Your task to perform on an android device: check google app version Image 0: 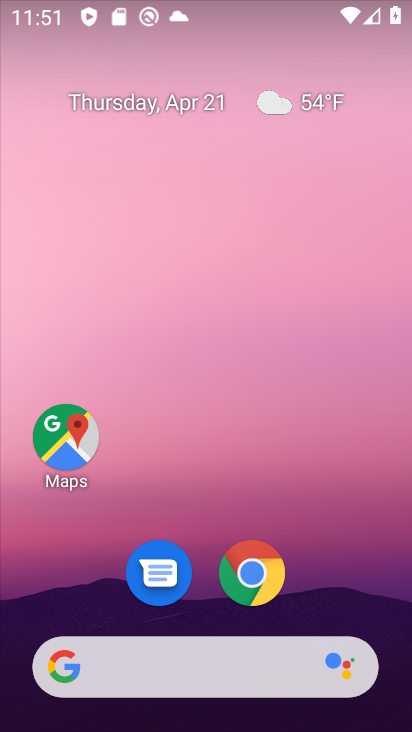
Step 0: drag from (218, 609) to (304, 189)
Your task to perform on an android device: check google app version Image 1: 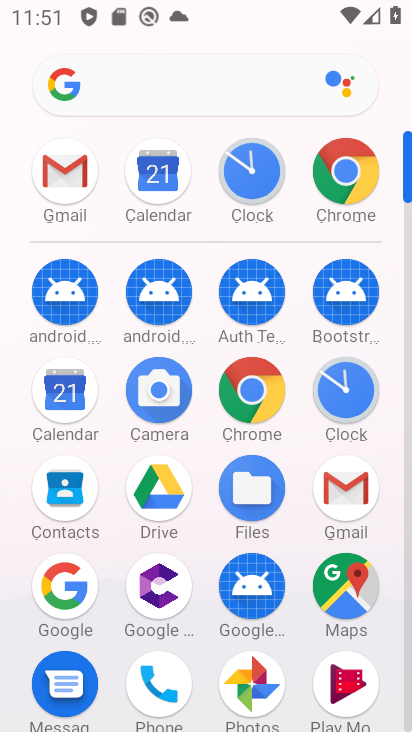
Step 1: click (70, 589)
Your task to perform on an android device: check google app version Image 2: 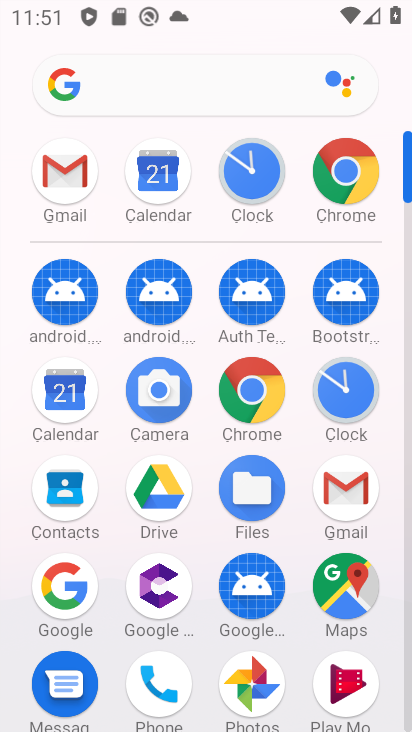
Step 2: click (227, 357)
Your task to perform on an android device: check google app version Image 3: 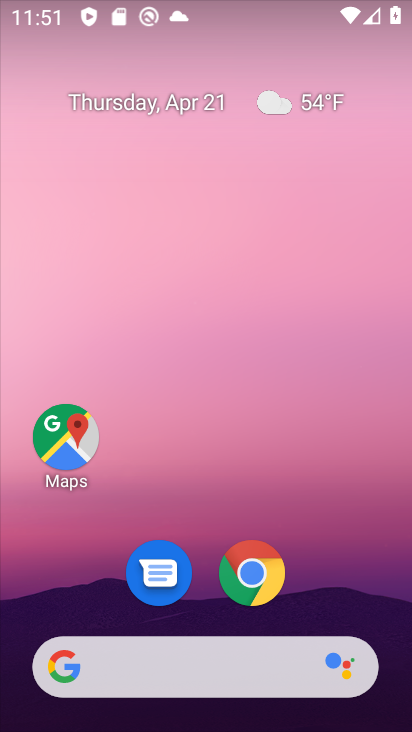
Step 3: drag from (172, 645) to (311, 76)
Your task to perform on an android device: check google app version Image 4: 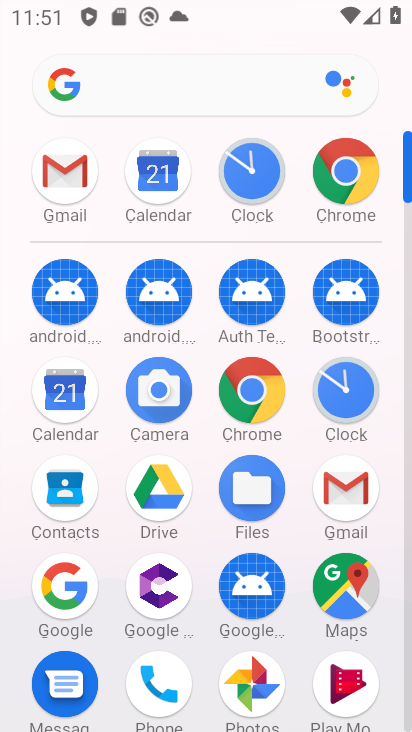
Step 4: drag from (76, 588) to (103, 510)
Your task to perform on an android device: check google app version Image 5: 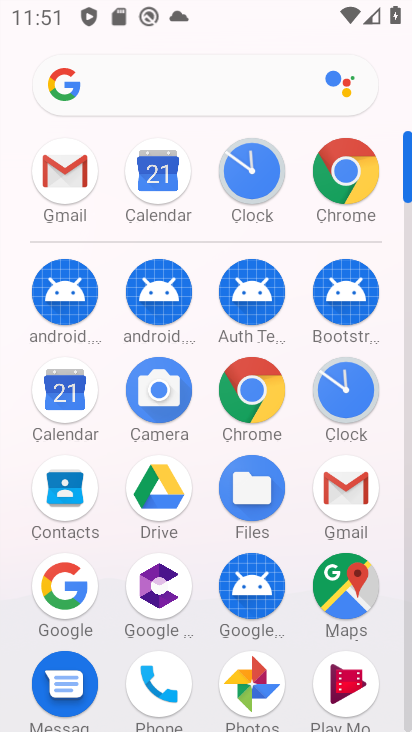
Step 5: click (237, 355)
Your task to perform on an android device: check google app version Image 6: 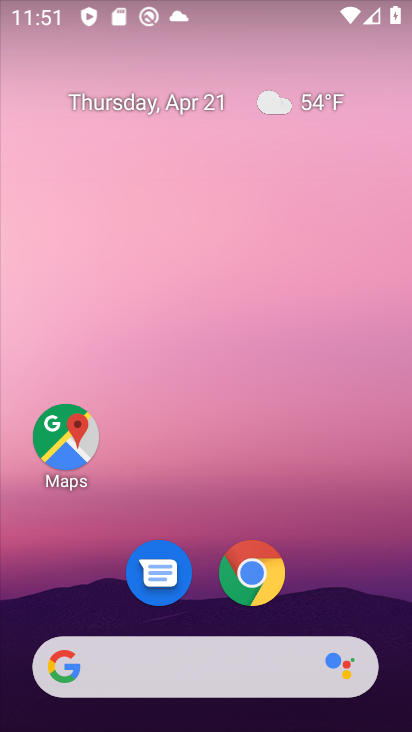
Step 6: drag from (113, 671) to (271, 156)
Your task to perform on an android device: check google app version Image 7: 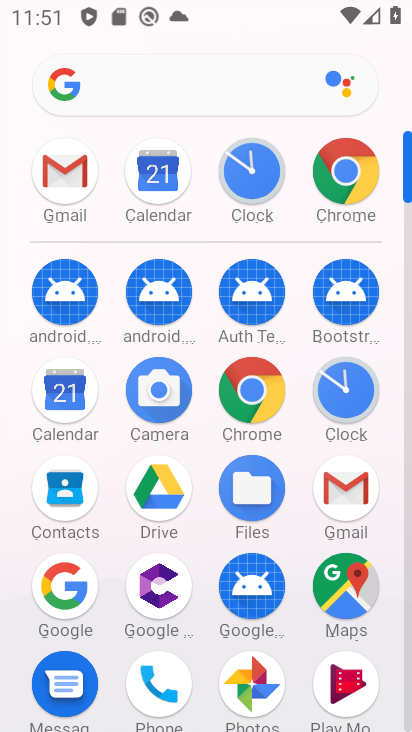
Step 7: drag from (55, 587) to (230, 355)
Your task to perform on an android device: check google app version Image 8: 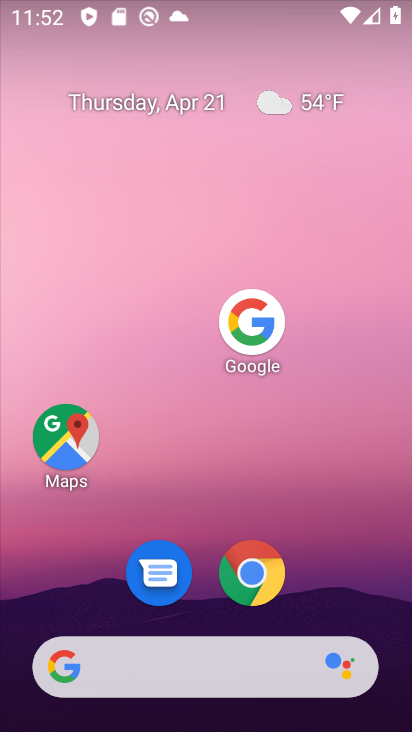
Step 8: drag from (253, 332) to (295, 263)
Your task to perform on an android device: check google app version Image 9: 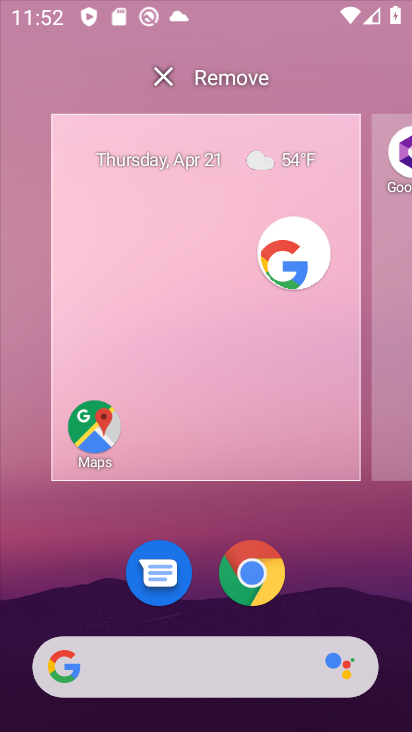
Step 9: click (258, 89)
Your task to perform on an android device: check google app version Image 10: 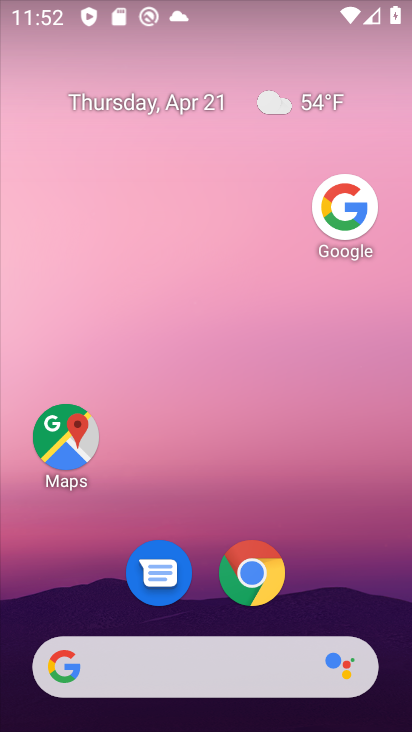
Step 10: click (343, 211)
Your task to perform on an android device: check google app version Image 11: 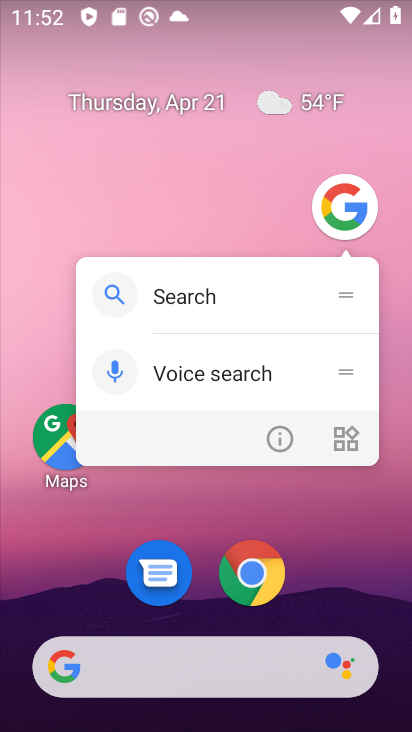
Step 11: click (274, 434)
Your task to perform on an android device: check google app version Image 12: 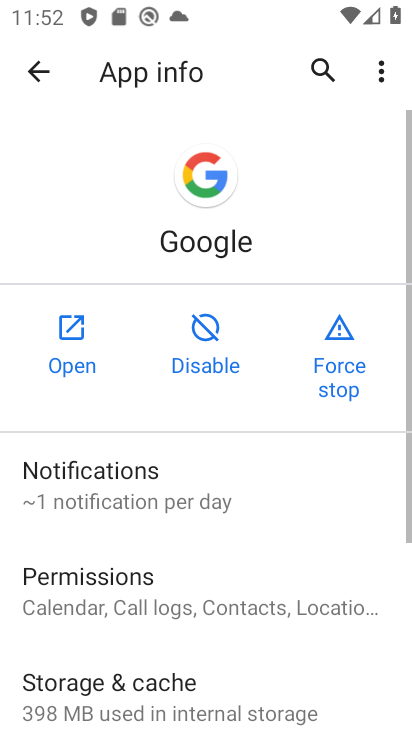
Step 12: drag from (216, 675) to (361, 130)
Your task to perform on an android device: check google app version Image 13: 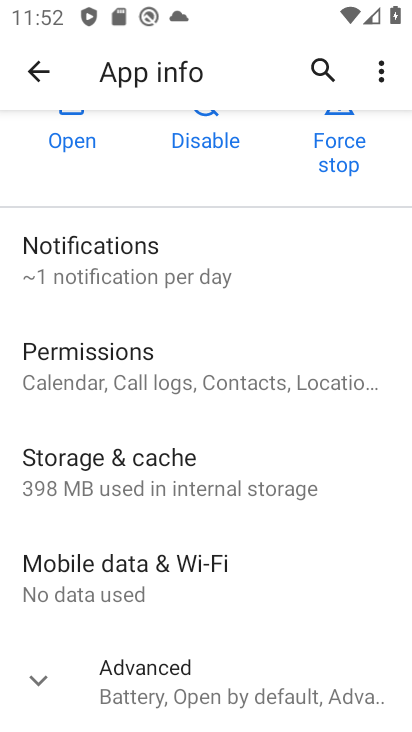
Step 13: drag from (174, 624) to (364, 95)
Your task to perform on an android device: check google app version Image 14: 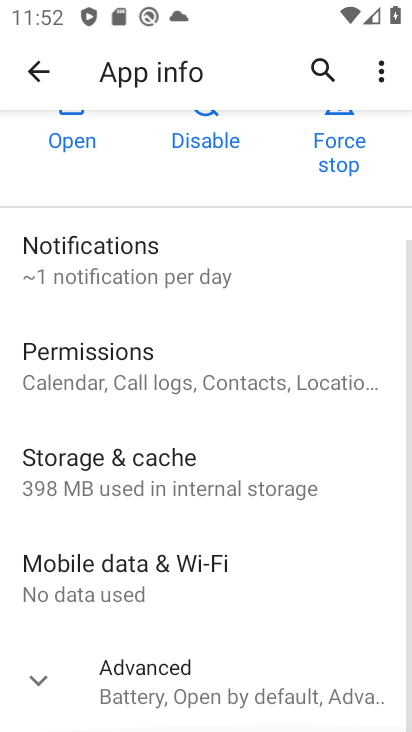
Step 14: click (129, 663)
Your task to perform on an android device: check google app version Image 15: 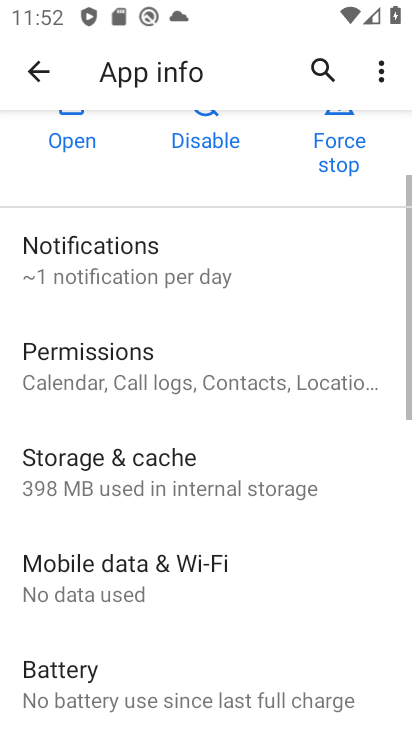
Step 15: task complete